Your task to perform on an android device: show emergency info Image 0: 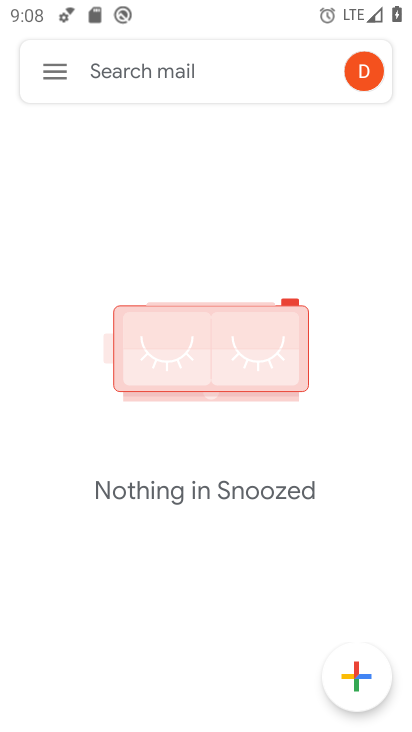
Step 0: press home button
Your task to perform on an android device: show emergency info Image 1: 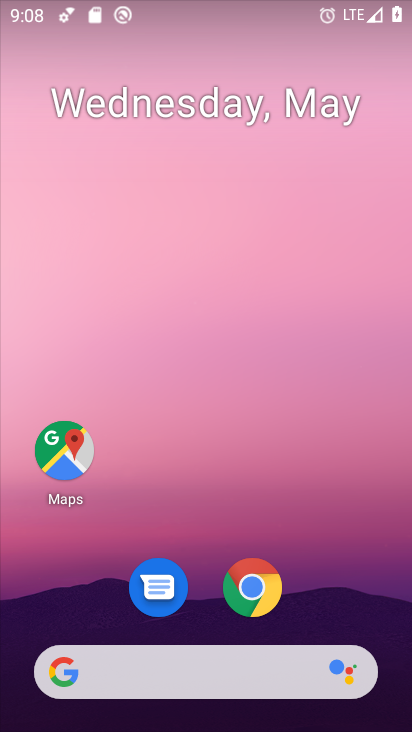
Step 1: drag from (203, 615) to (313, 56)
Your task to perform on an android device: show emergency info Image 2: 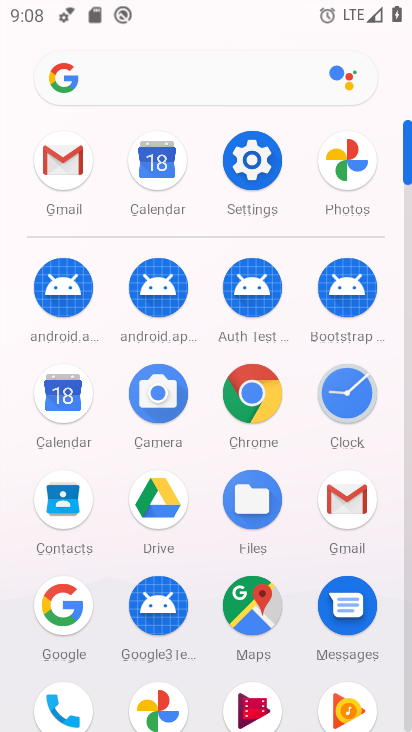
Step 2: click (266, 177)
Your task to perform on an android device: show emergency info Image 3: 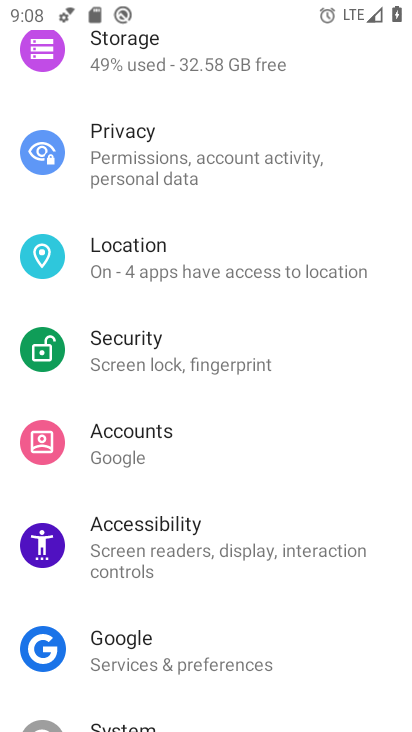
Step 3: drag from (181, 619) to (252, 227)
Your task to perform on an android device: show emergency info Image 4: 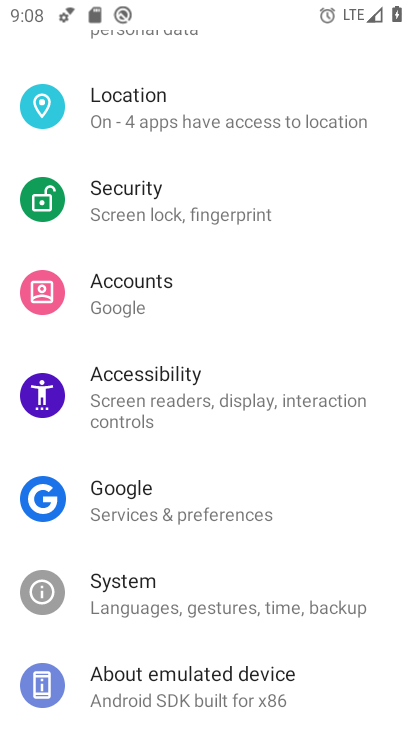
Step 4: click (183, 688)
Your task to perform on an android device: show emergency info Image 5: 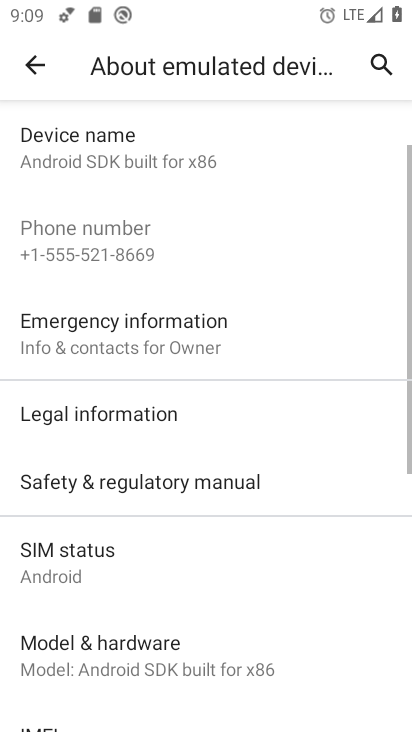
Step 5: click (145, 355)
Your task to perform on an android device: show emergency info Image 6: 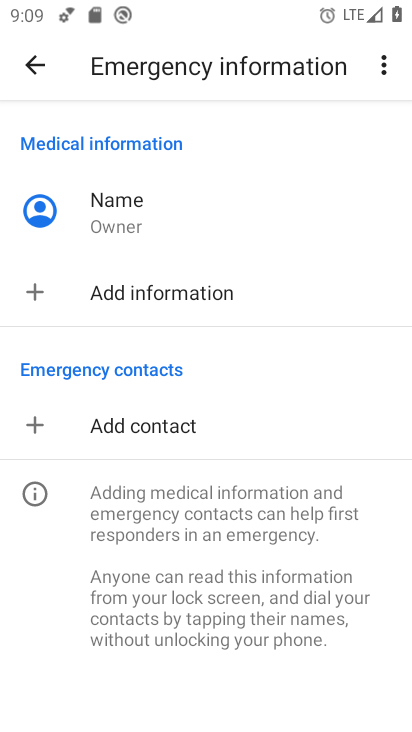
Step 6: task complete